Your task to perform on an android device: Search for Italian restaurants on Maps Image 0: 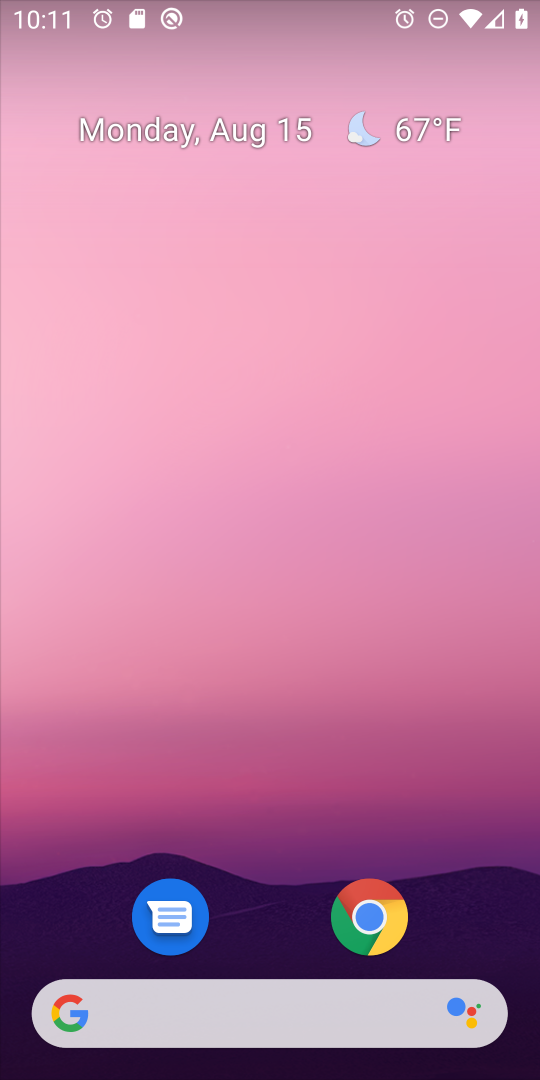
Step 0: drag from (331, 827) to (410, 0)
Your task to perform on an android device: Search for Italian restaurants on Maps Image 1: 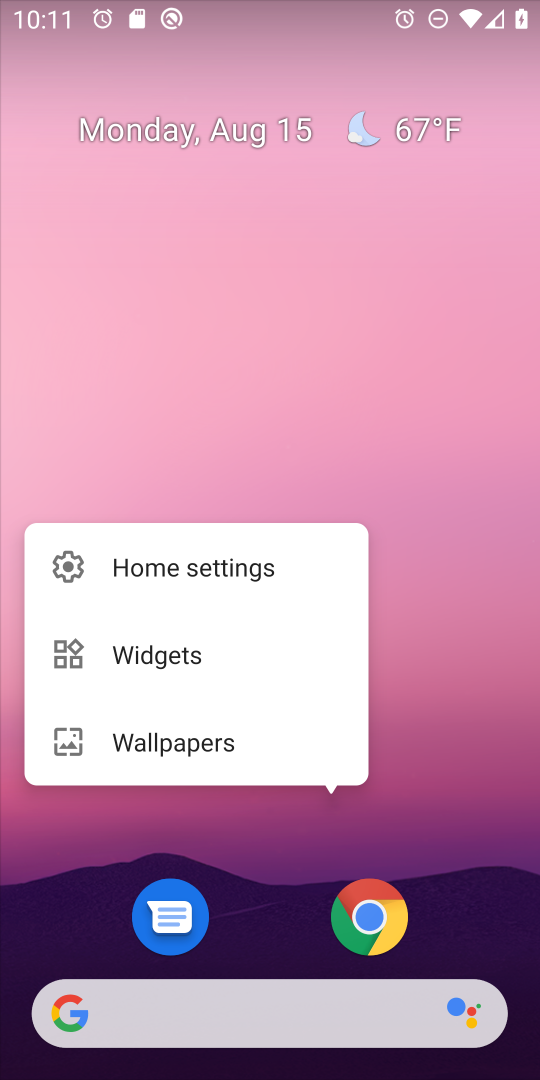
Step 1: drag from (316, 333) to (323, 3)
Your task to perform on an android device: Search for Italian restaurants on Maps Image 2: 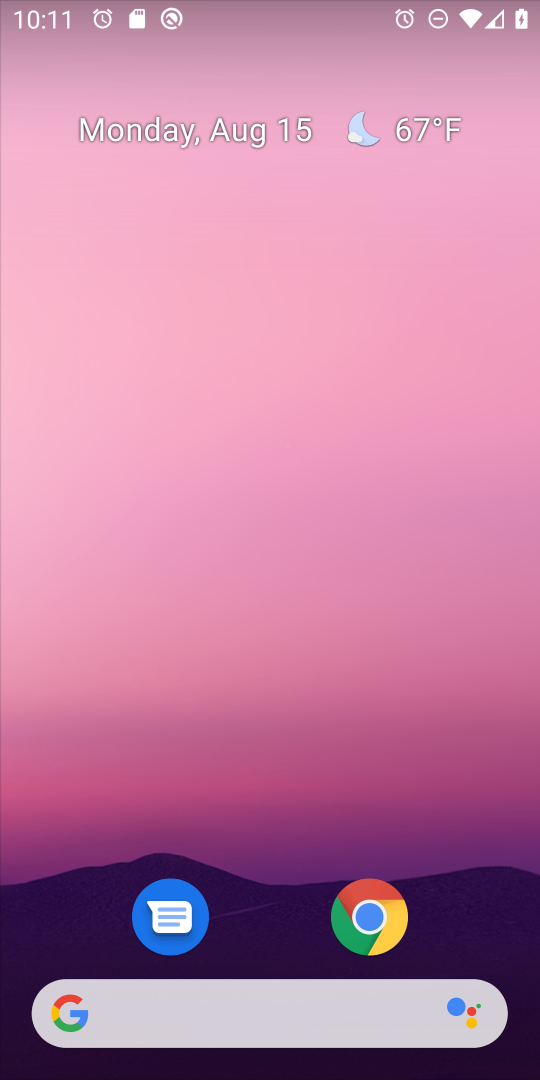
Step 2: drag from (239, 889) to (284, 0)
Your task to perform on an android device: Search for Italian restaurants on Maps Image 3: 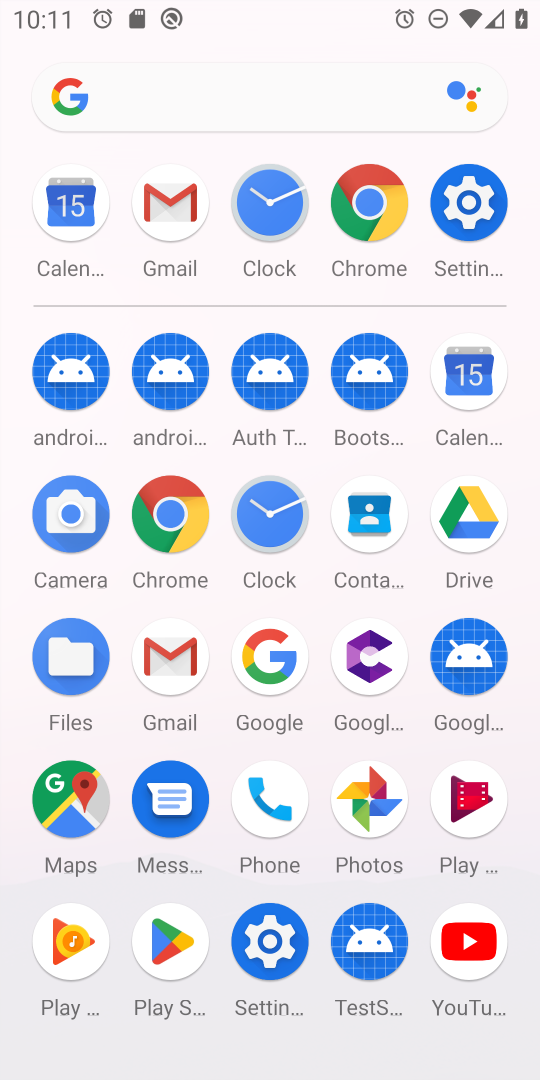
Step 3: click (78, 798)
Your task to perform on an android device: Search for Italian restaurants on Maps Image 4: 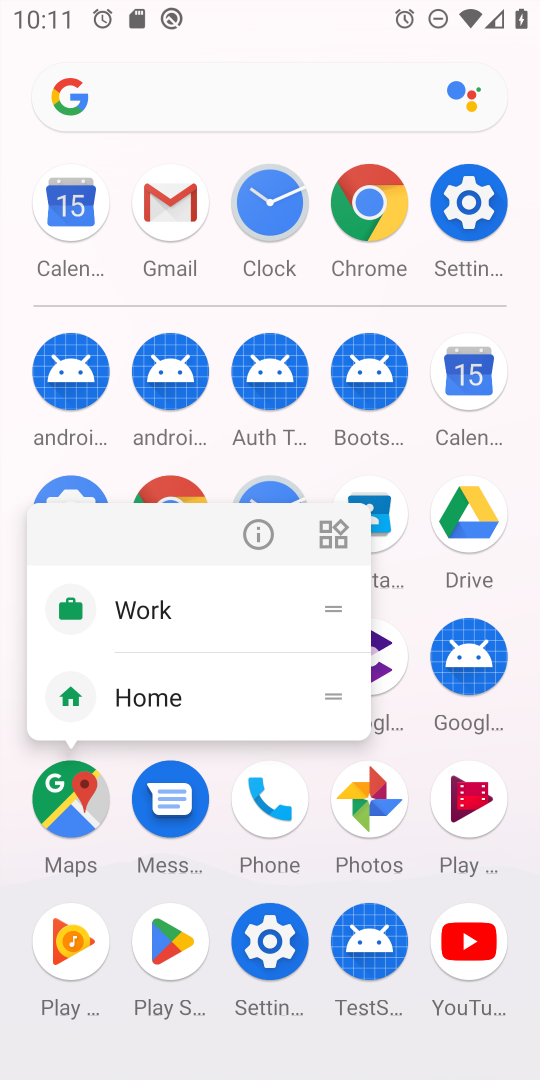
Step 4: click (60, 788)
Your task to perform on an android device: Search for Italian restaurants on Maps Image 5: 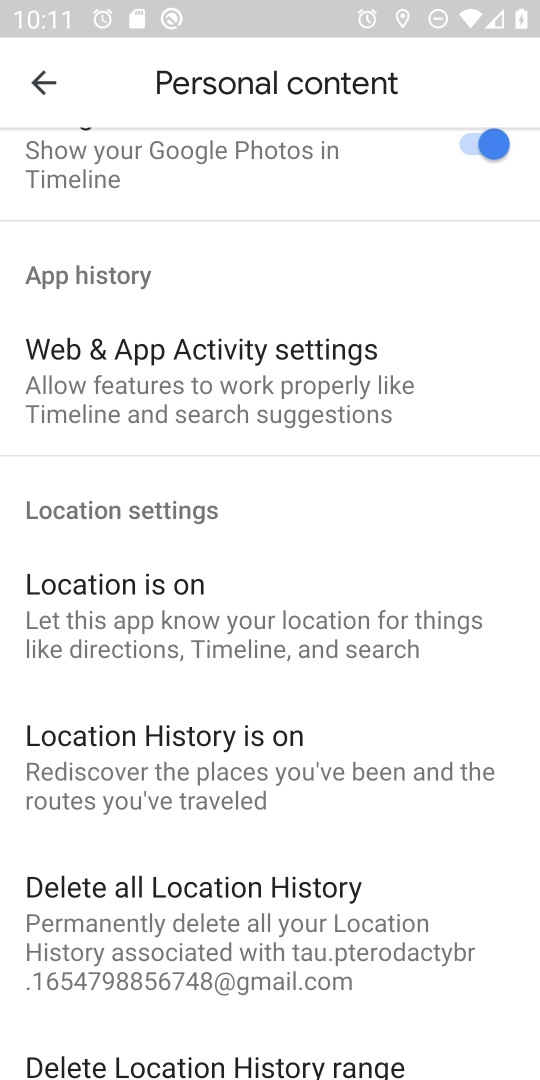
Step 5: click (42, 87)
Your task to perform on an android device: Search for Italian restaurants on Maps Image 6: 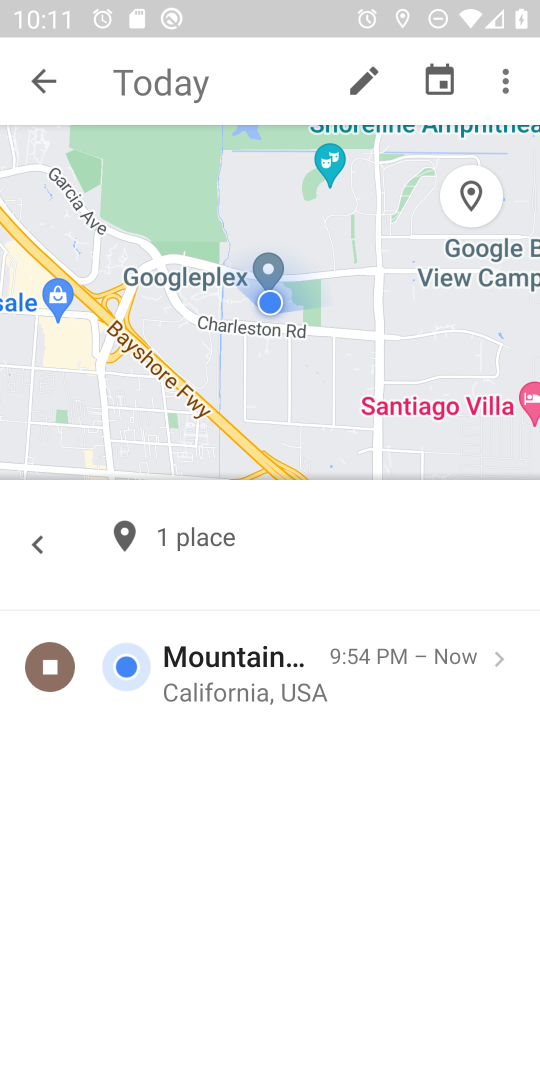
Step 6: click (42, 82)
Your task to perform on an android device: Search for Italian restaurants on Maps Image 7: 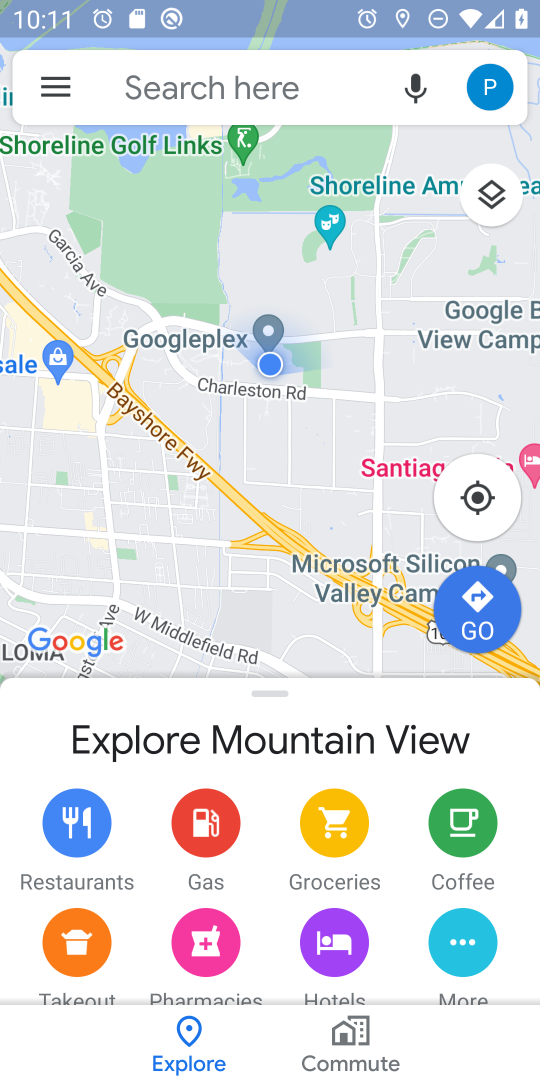
Step 7: click (39, 71)
Your task to perform on an android device: Search for Italian restaurants on Maps Image 8: 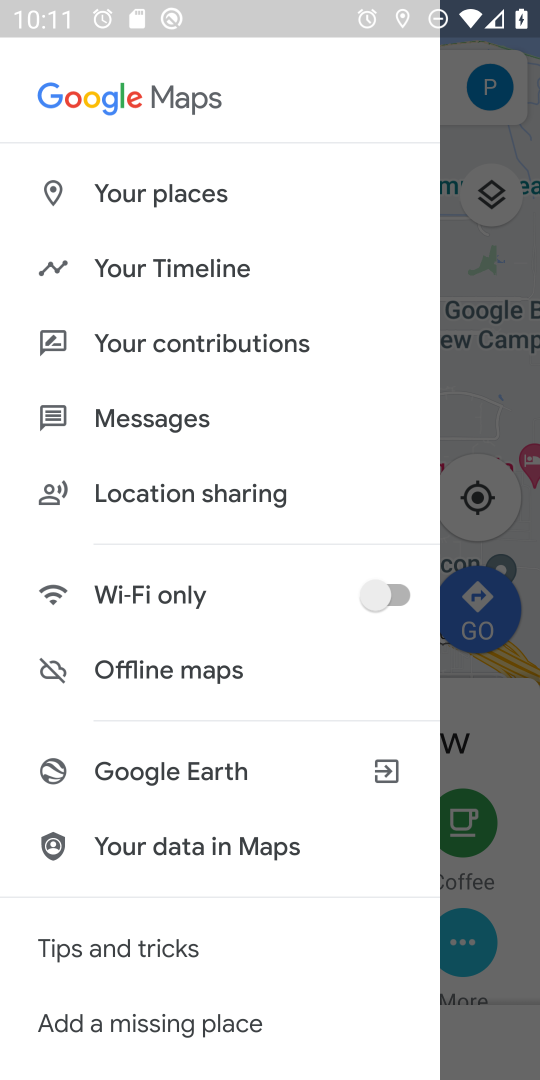
Step 8: click (475, 389)
Your task to perform on an android device: Search for Italian restaurants on Maps Image 9: 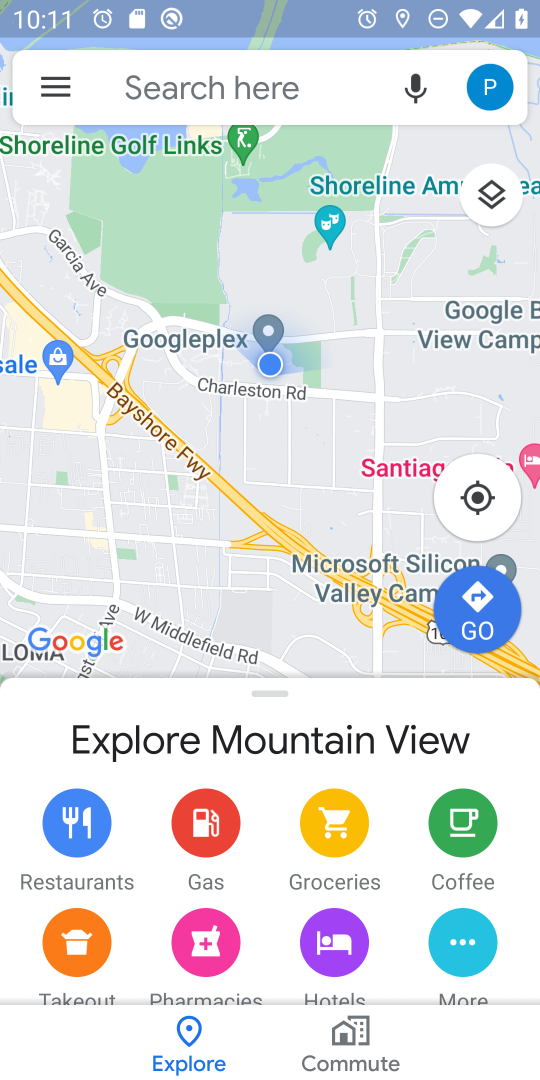
Step 9: click (288, 81)
Your task to perform on an android device: Search for Italian restaurants on Maps Image 10: 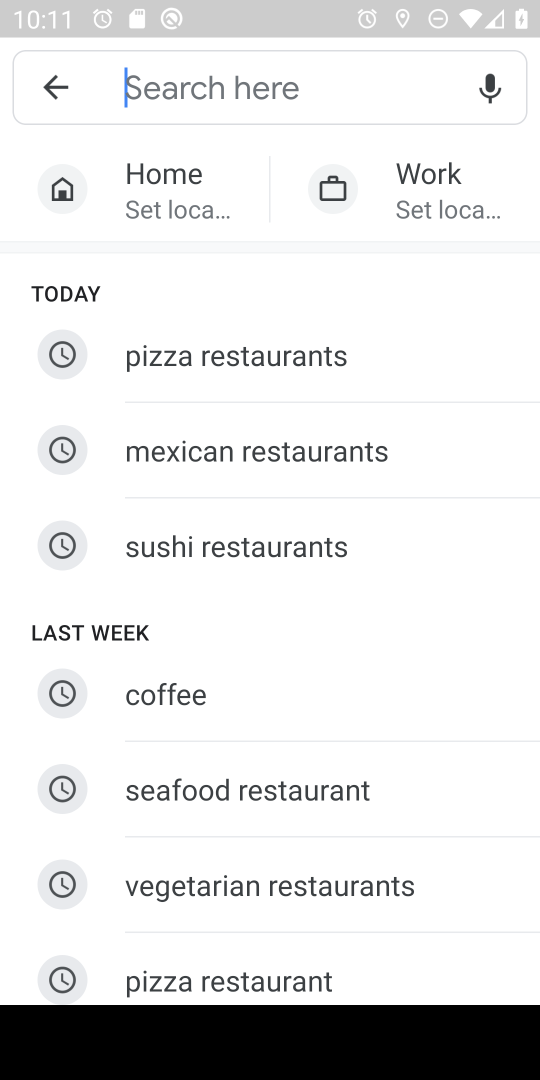
Step 10: drag from (266, 817) to (254, 241)
Your task to perform on an android device: Search for Italian restaurants on Maps Image 11: 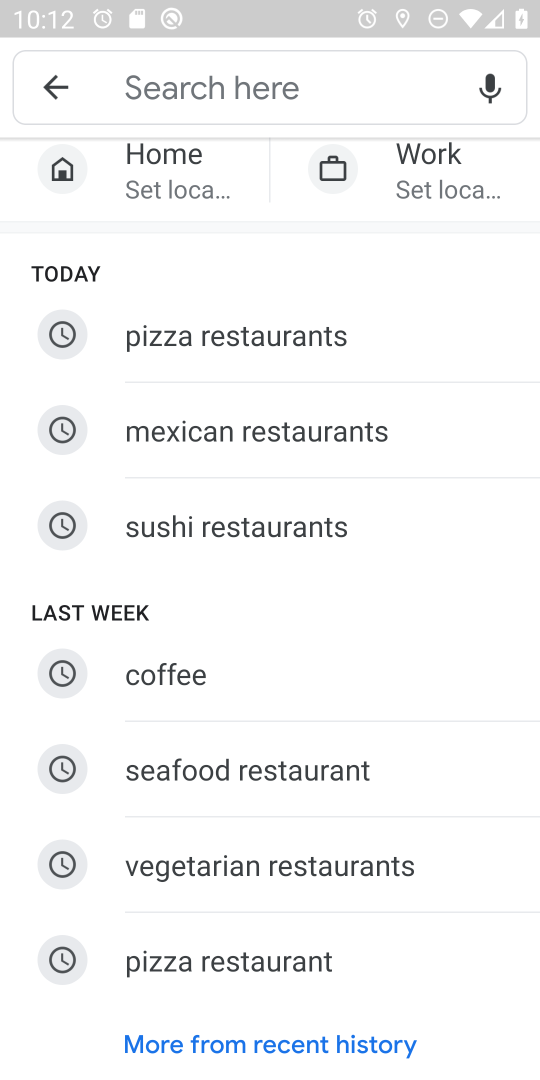
Step 11: click (230, 79)
Your task to perform on an android device: Search for Italian restaurants on Maps Image 12: 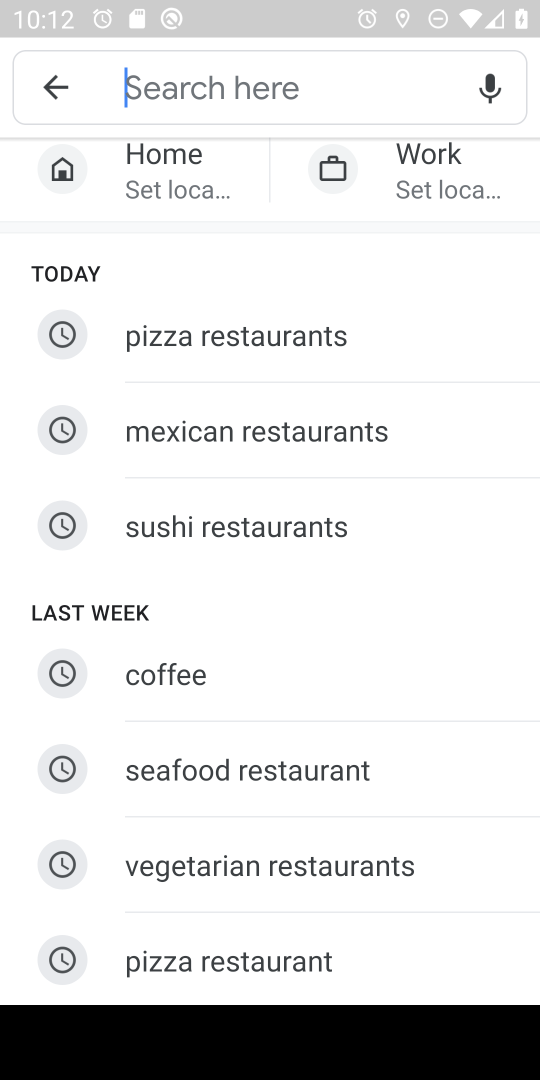
Step 12: type "italian restaurants"
Your task to perform on an android device: Search for Italian restaurants on Maps Image 13: 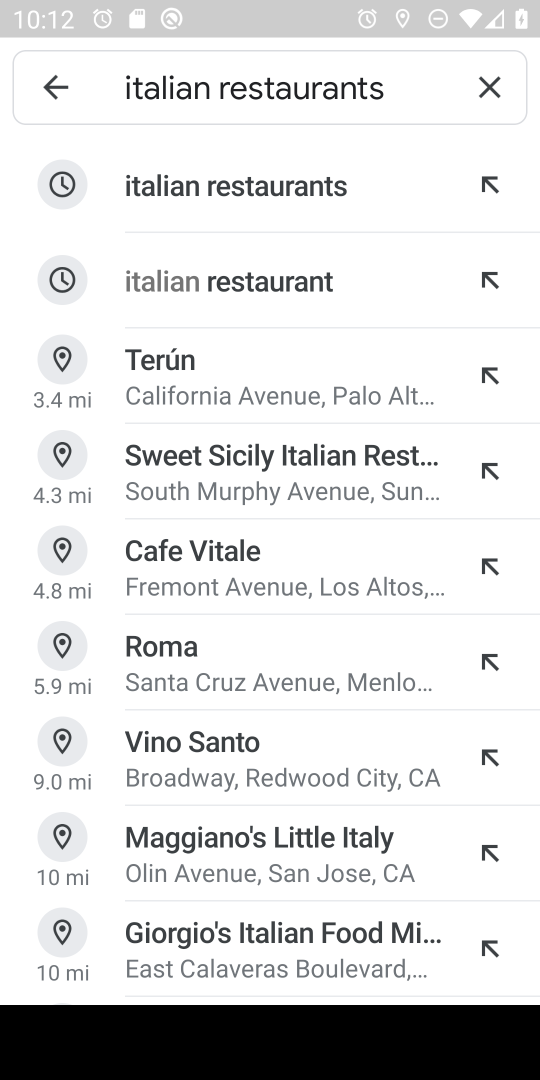
Step 13: click (315, 188)
Your task to perform on an android device: Search for Italian restaurants on Maps Image 14: 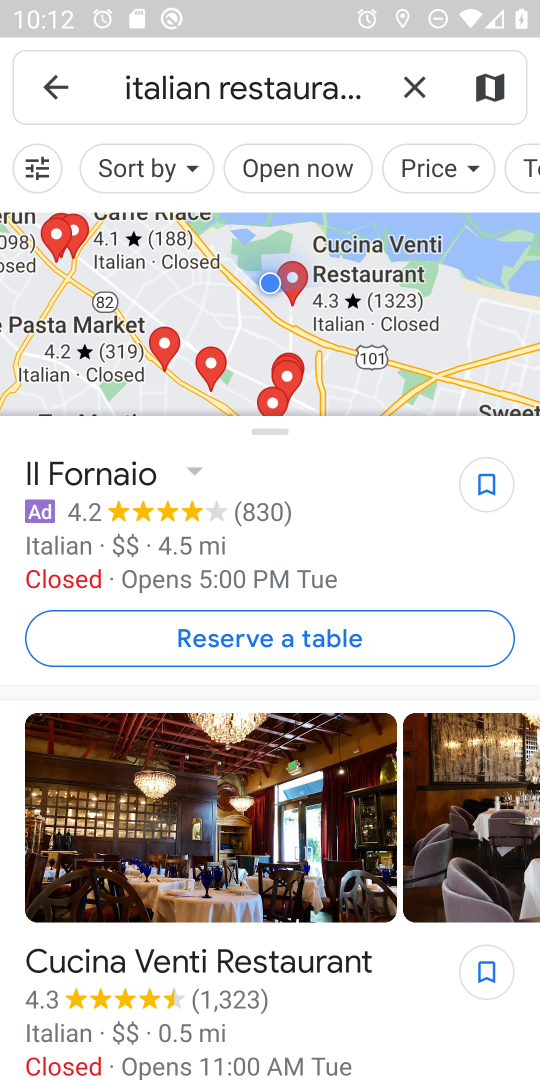
Step 14: task complete